Your task to perform on an android device: Search for Italian restaurants on Maps Image 0: 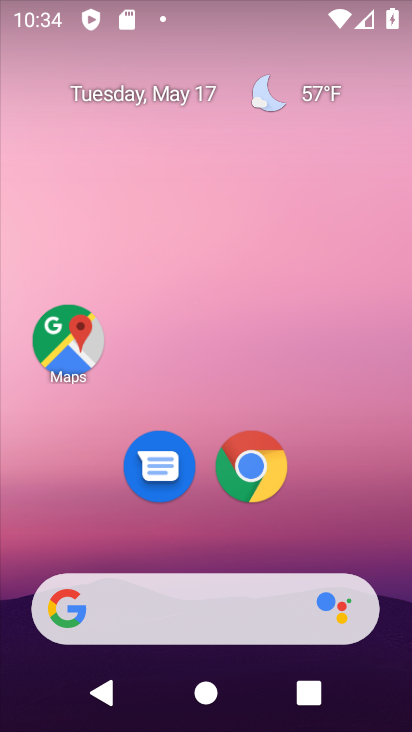
Step 0: click (67, 354)
Your task to perform on an android device: Search for Italian restaurants on Maps Image 1: 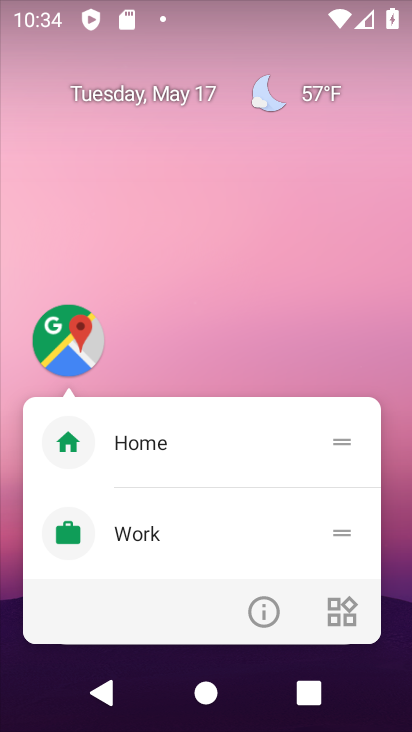
Step 1: click (70, 348)
Your task to perform on an android device: Search for Italian restaurants on Maps Image 2: 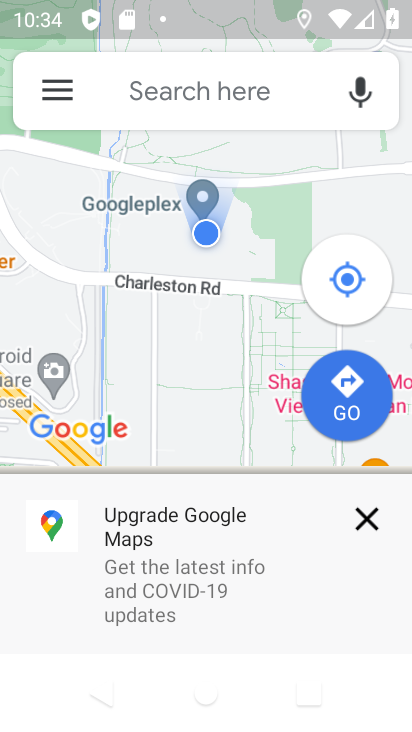
Step 2: click (215, 109)
Your task to perform on an android device: Search for Italian restaurants on Maps Image 3: 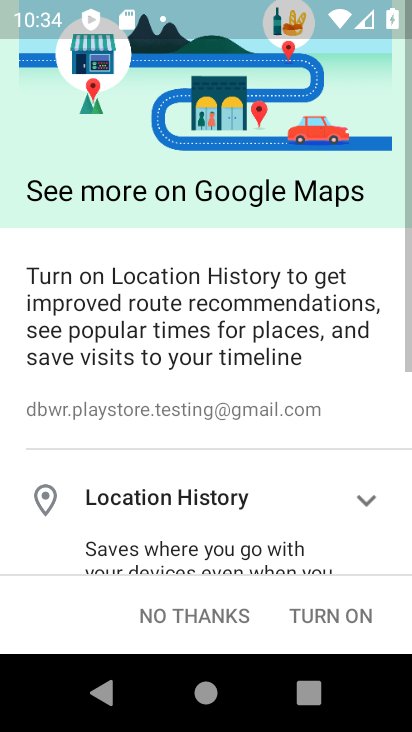
Step 3: click (343, 611)
Your task to perform on an android device: Search for Italian restaurants on Maps Image 4: 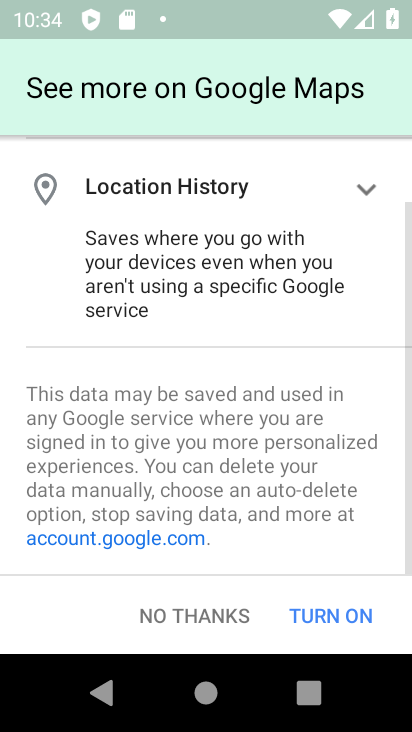
Step 4: click (343, 610)
Your task to perform on an android device: Search for Italian restaurants on Maps Image 5: 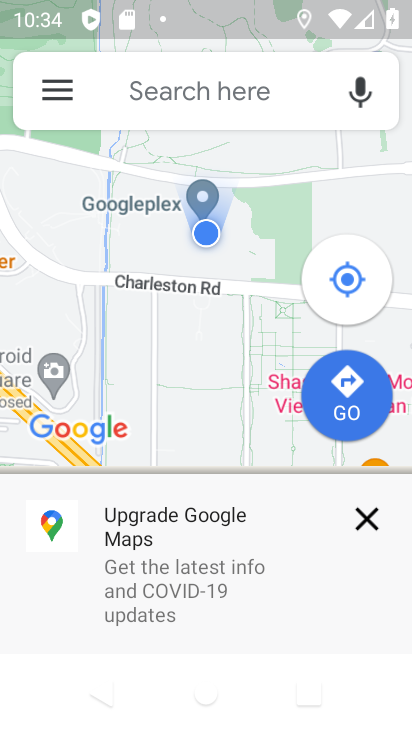
Step 5: click (173, 115)
Your task to perform on an android device: Search for Italian restaurants on Maps Image 6: 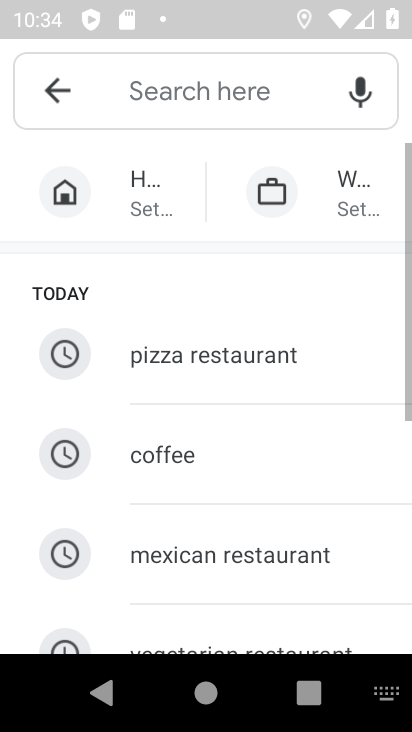
Step 6: drag from (213, 524) to (175, 183)
Your task to perform on an android device: Search for Italian restaurants on Maps Image 7: 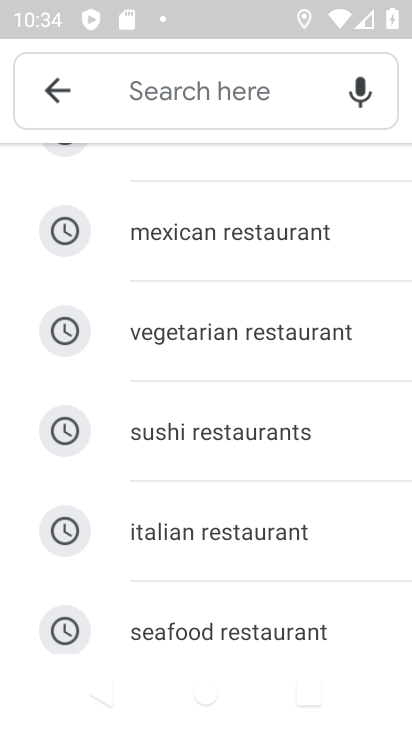
Step 7: click (237, 528)
Your task to perform on an android device: Search for Italian restaurants on Maps Image 8: 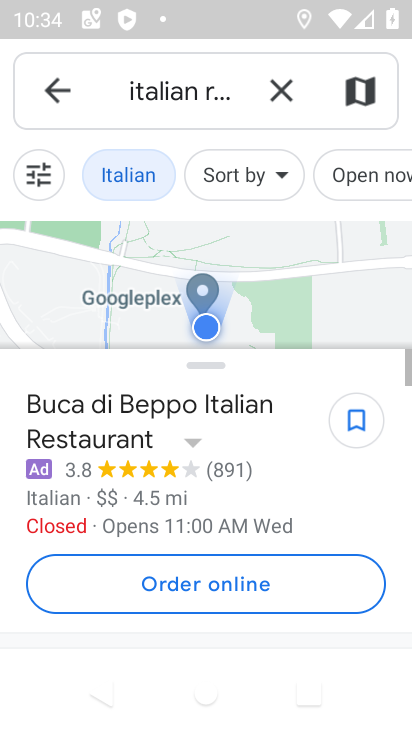
Step 8: task complete